Your task to perform on an android device: turn off picture-in-picture Image 0: 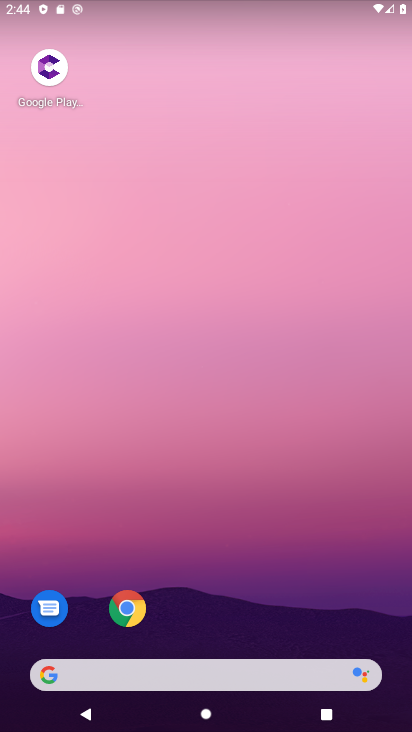
Step 0: press home button
Your task to perform on an android device: turn off picture-in-picture Image 1: 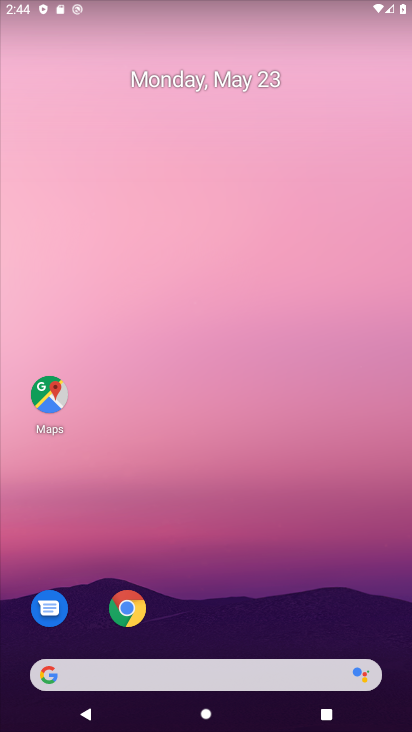
Step 1: drag from (306, 597) to (268, 152)
Your task to perform on an android device: turn off picture-in-picture Image 2: 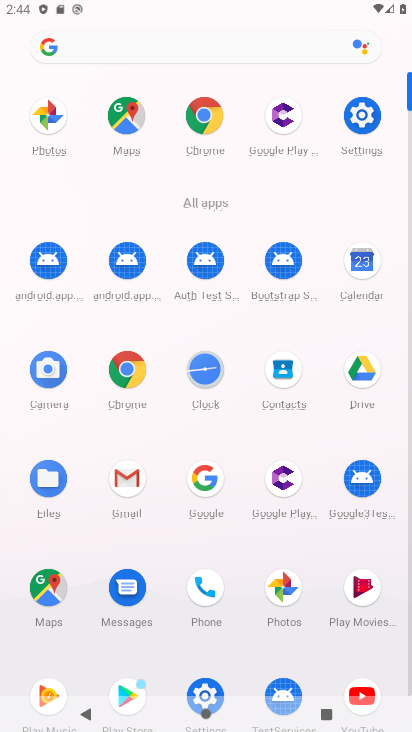
Step 2: click (356, 124)
Your task to perform on an android device: turn off picture-in-picture Image 3: 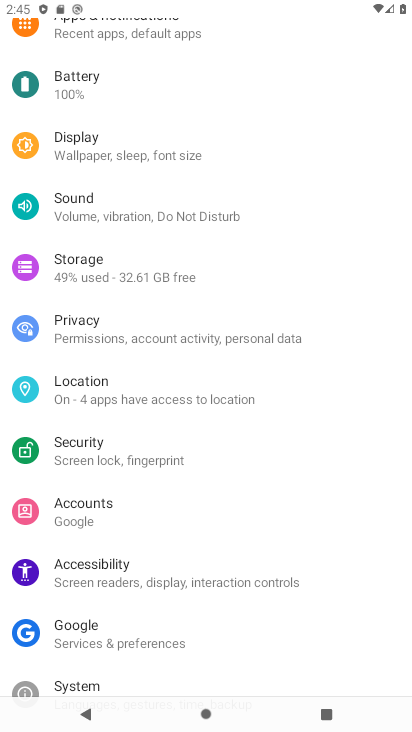
Step 3: drag from (174, 127) to (241, 471)
Your task to perform on an android device: turn off picture-in-picture Image 4: 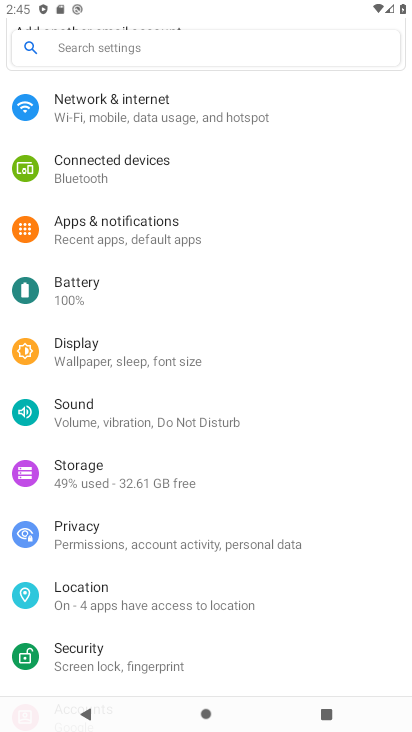
Step 4: click (192, 230)
Your task to perform on an android device: turn off picture-in-picture Image 5: 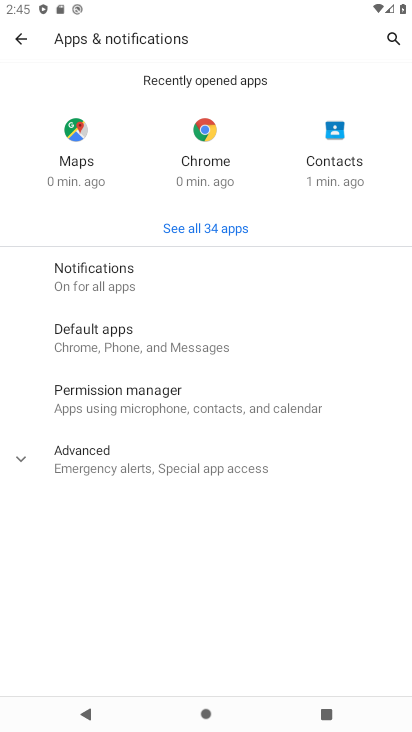
Step 5: click (148, 457)
Your task to perform on an android device: turn off picture-in-picture Image 6: 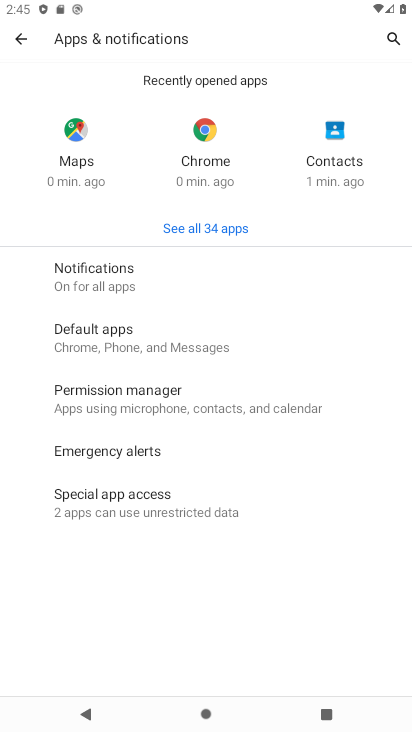
Step 6: click (159, 532)
Your task to perform on an android device: turn off picture-in-picture Image 7: 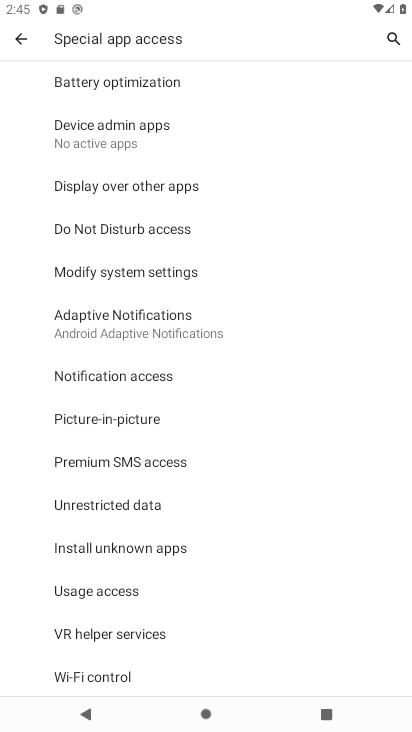
Step 7: drag from (175, 578) to (201, 353)
Your task to perform on an android device: turn off picture-in-picture Image 8: 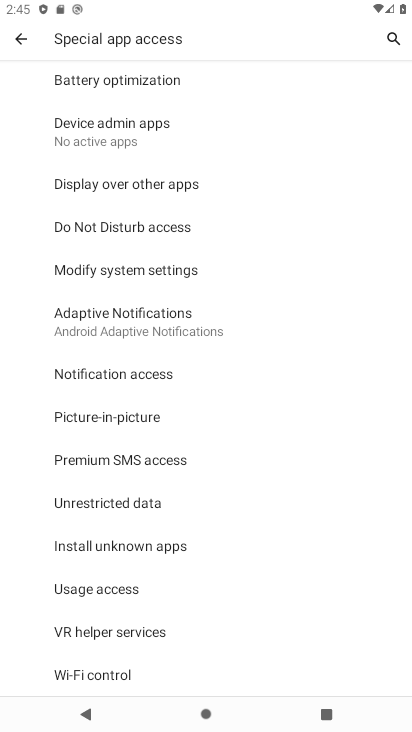
Step 8: drag from (221, 247) to (221, 454)
Your task to perform on an android device: turn off picture-in-picture Image 9: 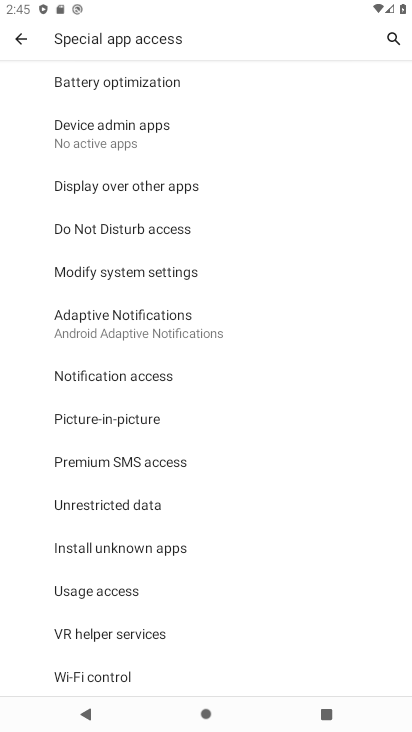
Step 9: click (117, 416)
Your task to perform on an android device: turn off picture-in-picture Image 10: 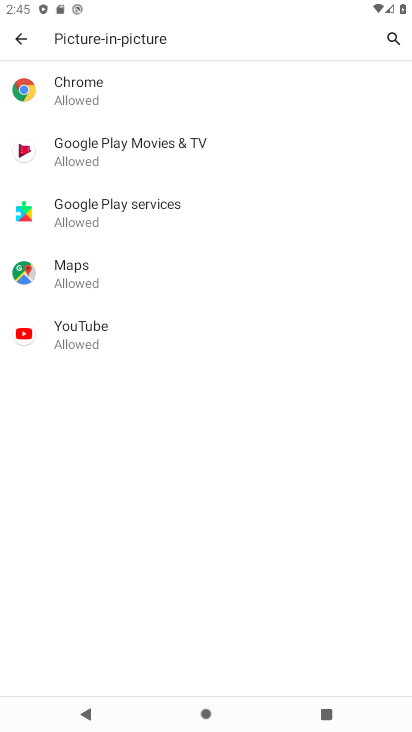
Step 10: click (121, 104)
Your task to perform on an android device: turn off picture-in-picture Image 11: 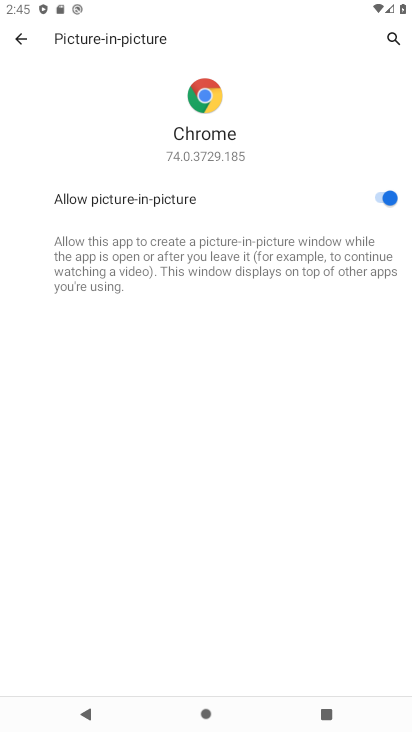
Step 11: click (377, 195)
Your task to perform on an android device: turn off picture-in-picture Image 12: 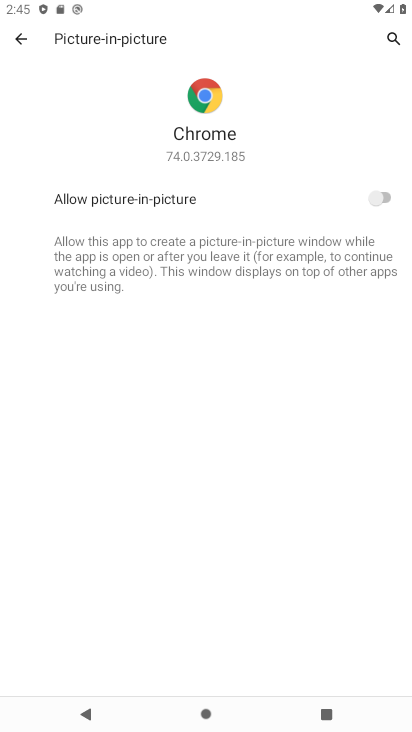
Step 12: task complete